Your task to perform on an android device: Open Youtube and go to "Your channel" Image 0: 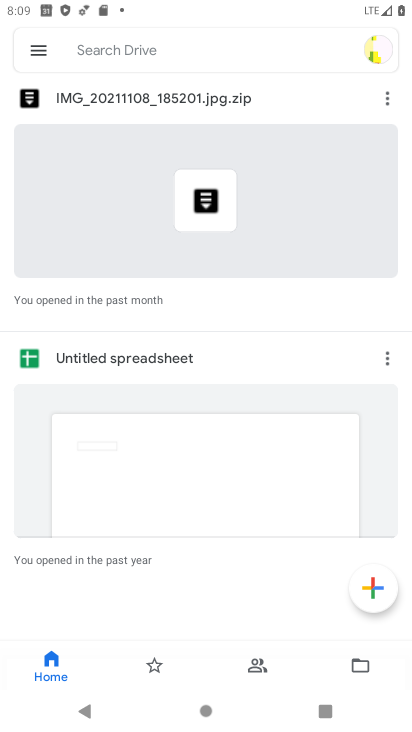
Step 0: press home button
Your task to perform on an android device: Open Youtube and go to "Your channel" Image 1: 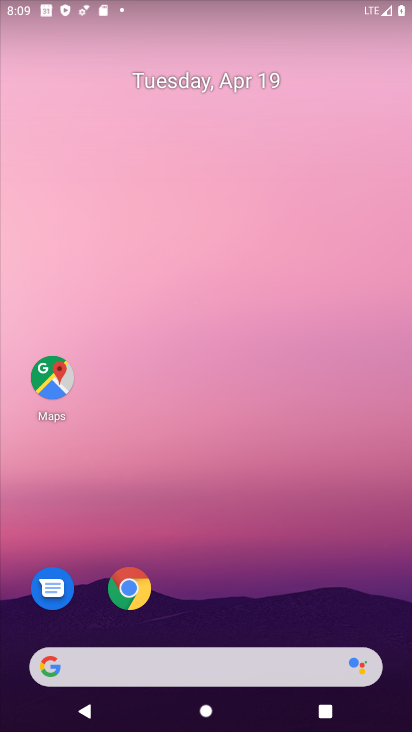
Step 1: drag from (204, 715) to (207, 40)
Your task to perform on an android device: Open Youtube and go to "Your channel" Image 2: 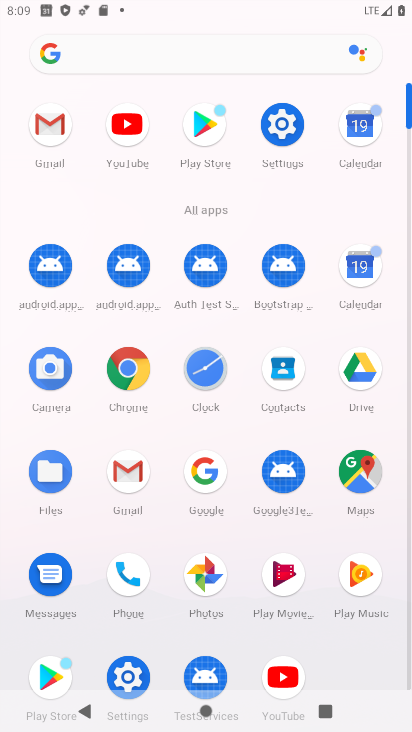
Step 2: click (280, 673)
Your task to perform on an android device: Open Youtube and go to "Your channel" Image 3: 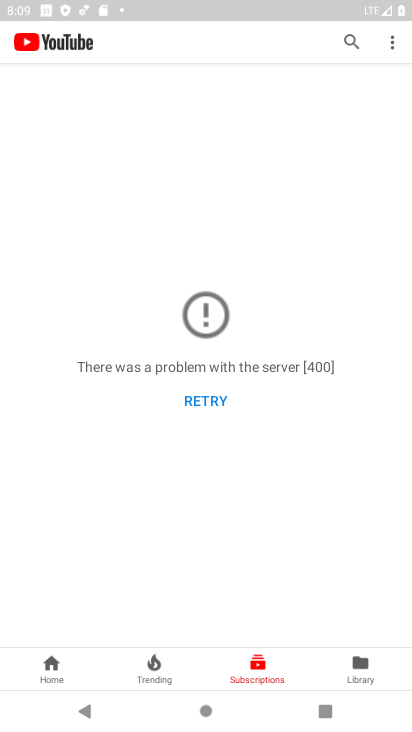
Step 3: click (364, 662)
Your task to perform on an android device: Open Youtube and go to "Your channel" Image 4: 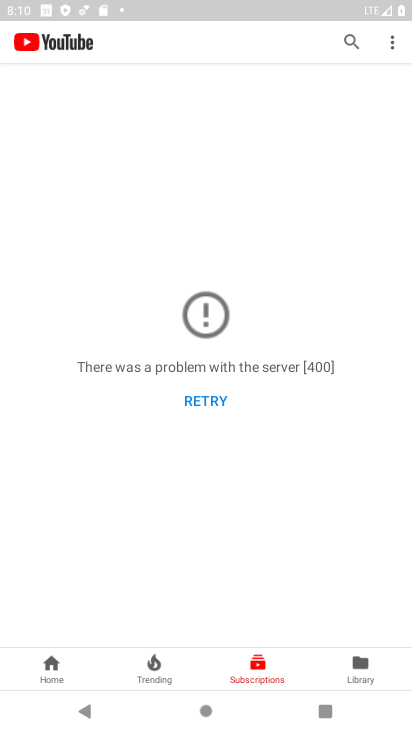
Step 4: task complete